Your task to perform on an android device: When is my next meeting? Image 0: 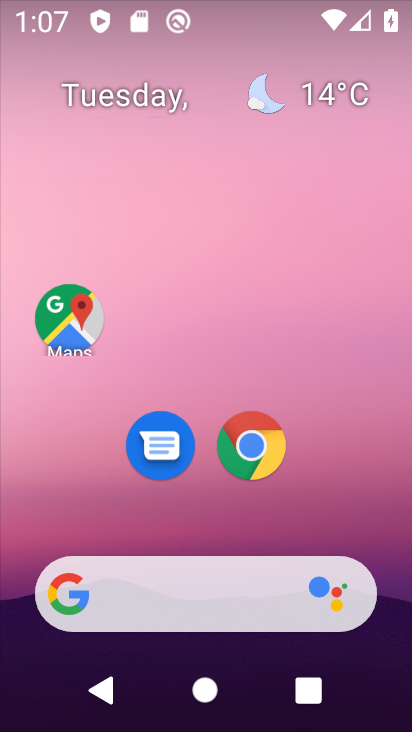
Step 0: drag from (349, 520) to (400, 73)
Your task to perform on an android device: When is my next meeting? Image 1: 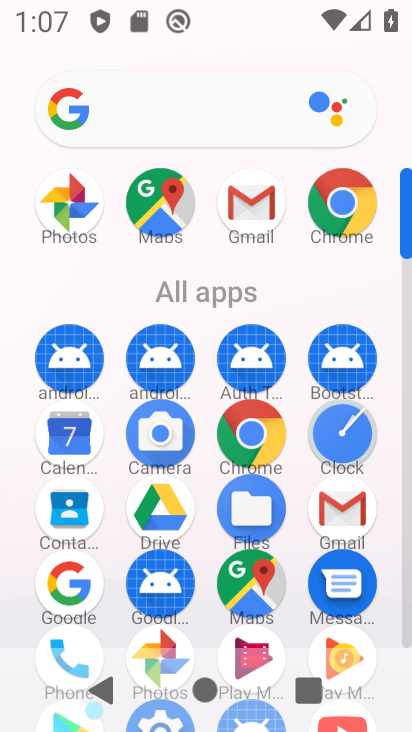
Step 1: click (79, 447)
Your task to perform on an android device: When is my next meeting? Image 2: 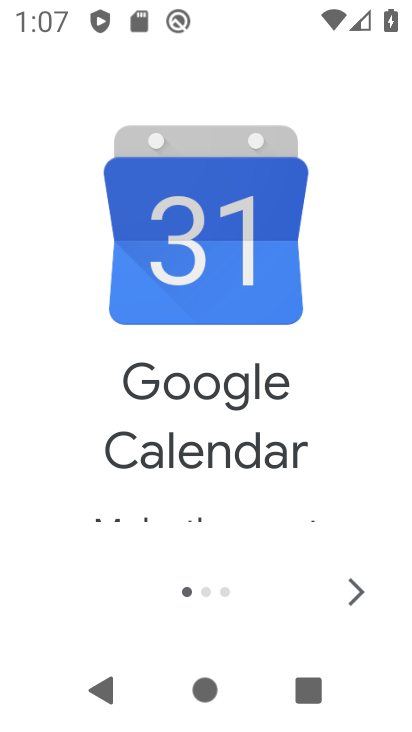
Step 2: click (360, 605)
Your task to perform on an android device: When is my next meeting? Image 3: 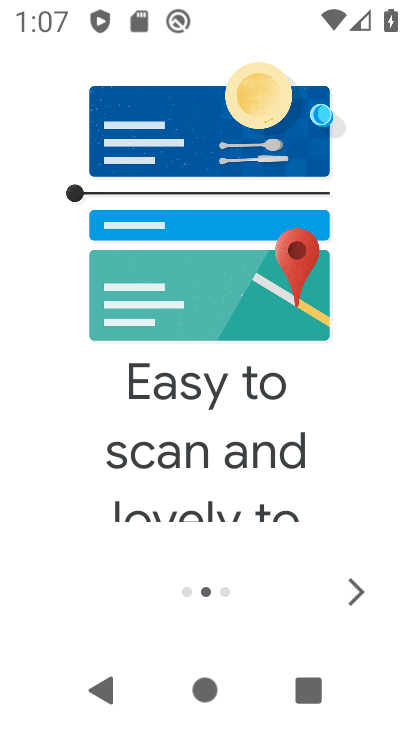
Step 3: click (359, 604)
Your task to perform on an android device: When is my next meeting? Image 4: 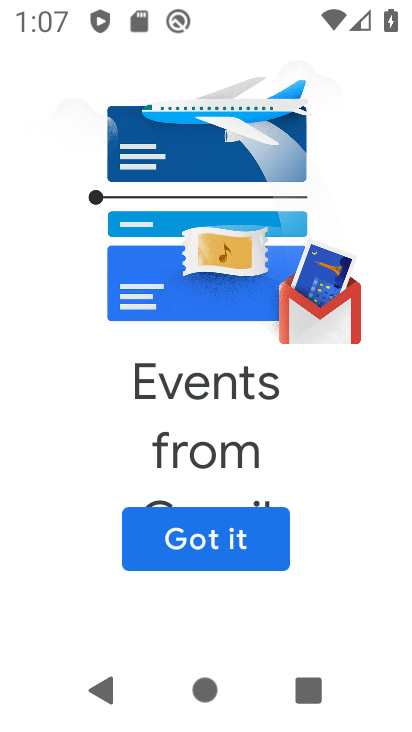
Step 4: click (226, 566)
Your task to perform on an android device: When is my next meeting? Image 5: 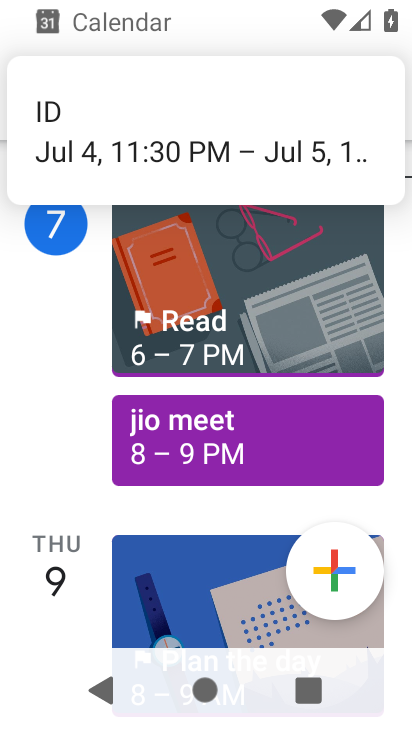
Step 5: click (245, 449)
Your task to perform on an android device: When is my next meeting? Image 6: 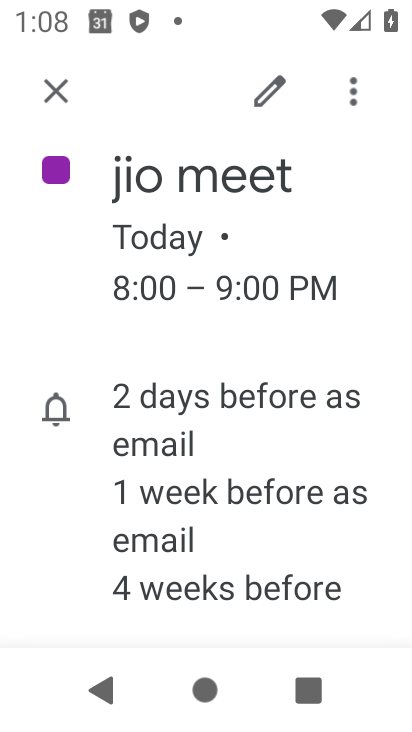
Step 6: task complete